Your task to perform on an android device: set an alarm Image 0: 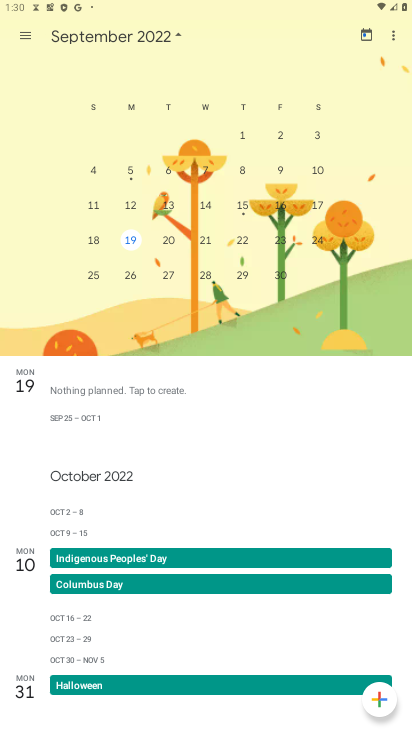
Step 0: press home button
Your task to perform on an android device: set an alarm Image 1: 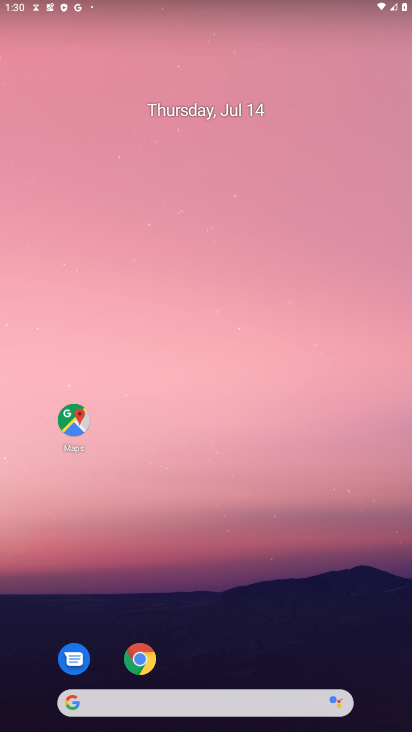
Step 1: drag from (20, 678) to (278, 34)
Your task to perform on an android device: set an alarm Image 2: 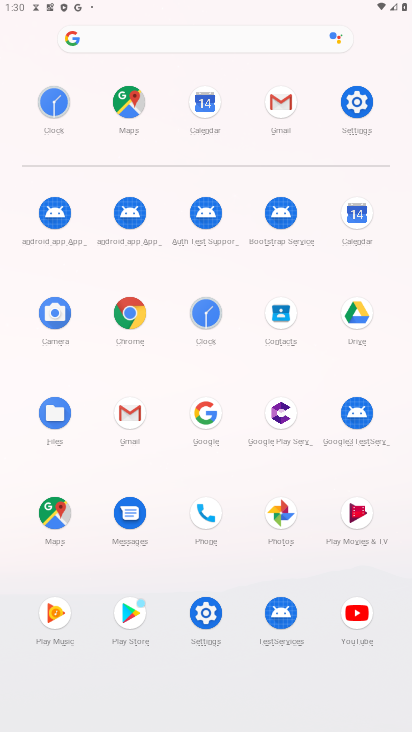
Step 2: click (208, 328)
Your task to perform on an android device: set an alarm Image 3: 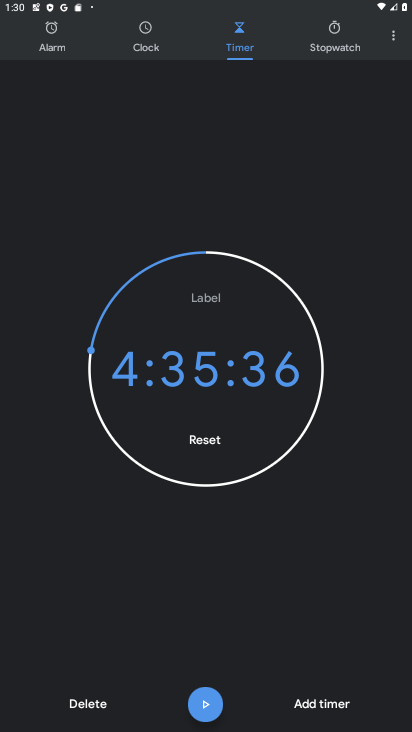
Step 3: click (50, 38)
Your task to perform on an android device: set an alarm Image 4: 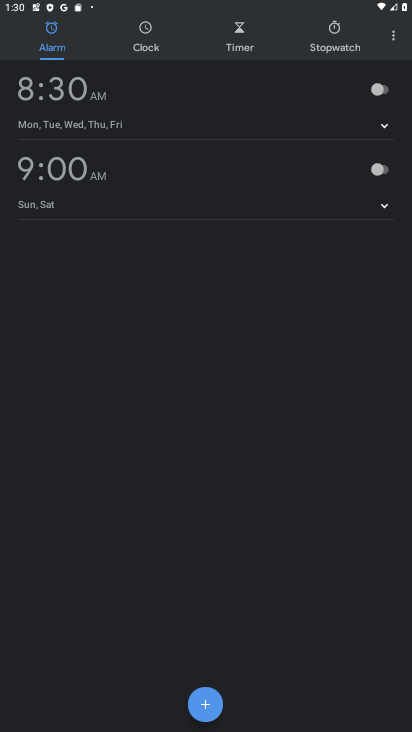
Step 4: click (374, 101)
Your task to perform on an android device: set an alarm Image 5: 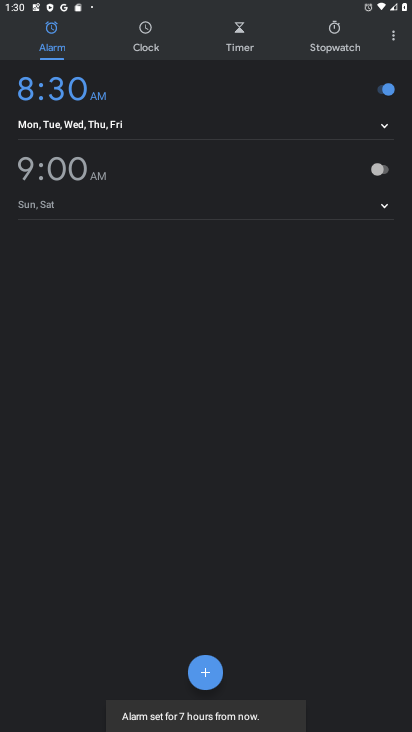
Step 5: task complete